Your task to perform on an android device: Open internet settings Image 0: 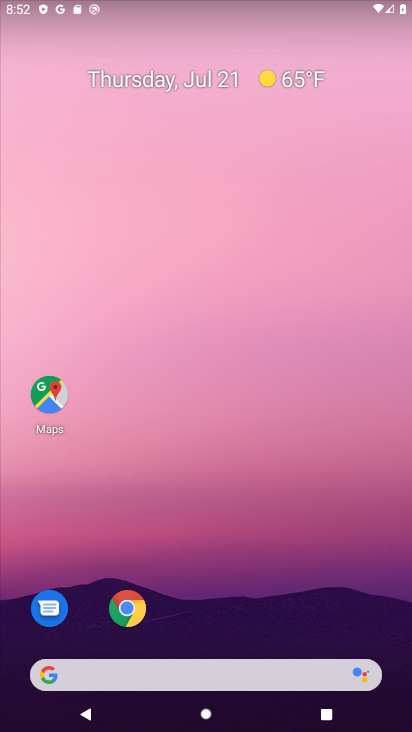
Step 0: drag from (249, 584) to (250, 264)
Your task to perform on an android device: Open internet settings Image 1: 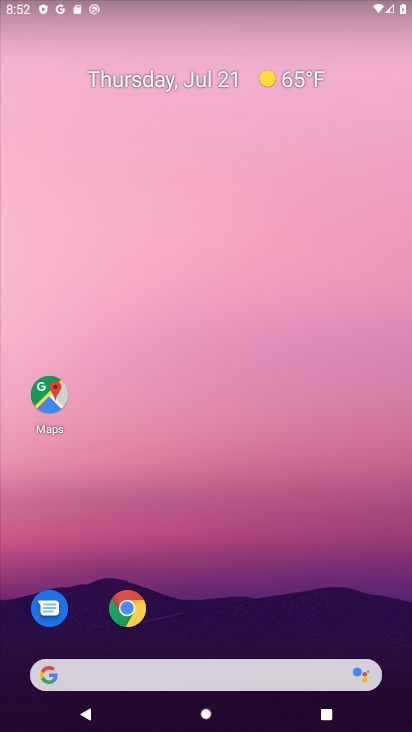
Step 1: drag from (235, 612) to (217, 228)
Your task to perform on an android device: Open internet settings Image 2: 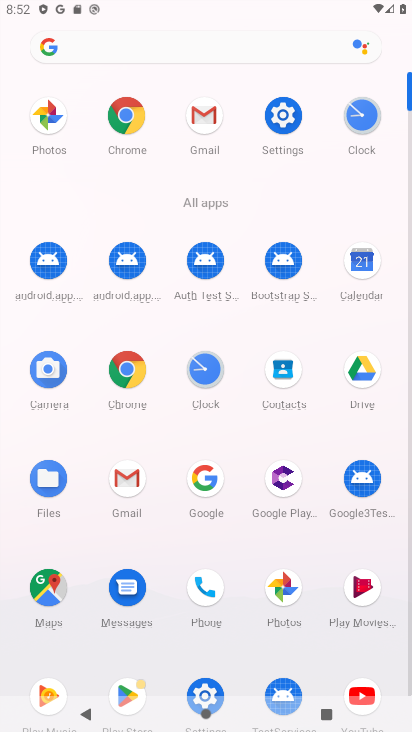
Step 2: click (277, 116)
Your task to perform on an android device: Open internet settings Image 3: 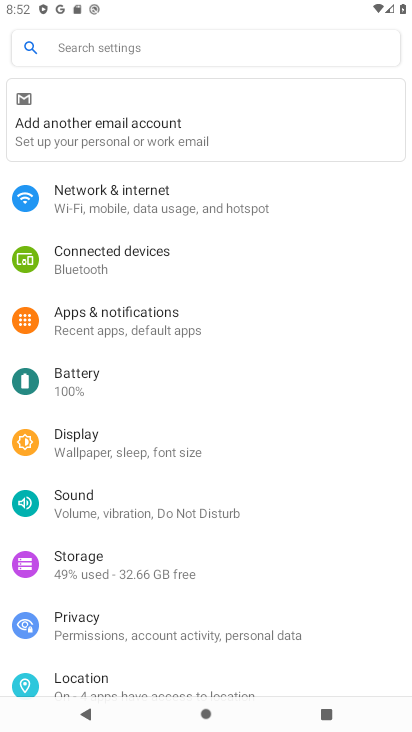
Step 3: click (151, 204)
Your task to perform on an android device: Open internet settings Image 4: 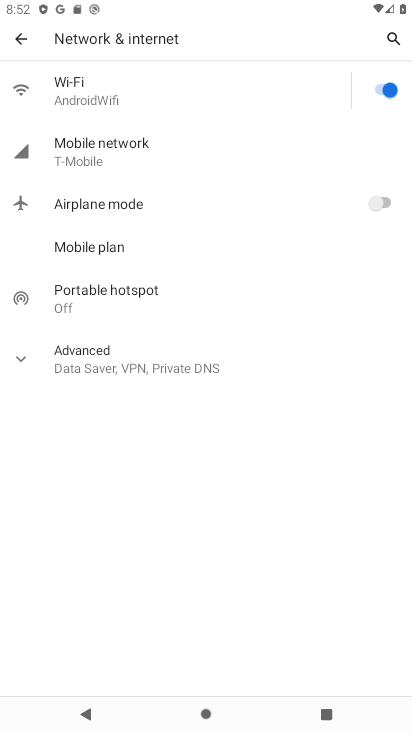
Step 4: task complete